Your task to perform on an android device: check android version Image 0: 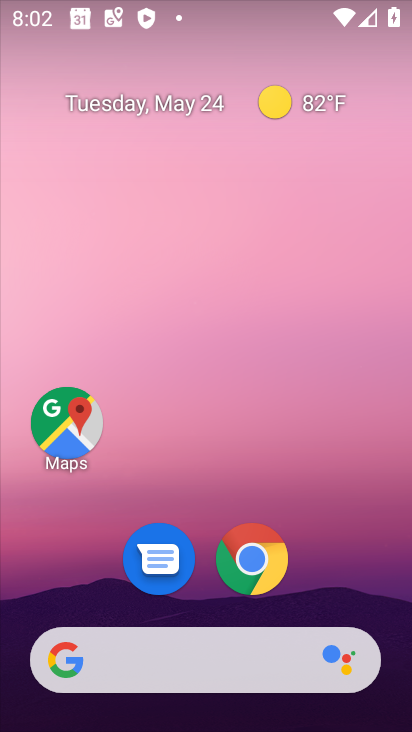
Step 0: drag from (389, 609) to (386, 175)
Your task to perform on an android device: check android version Image 1: 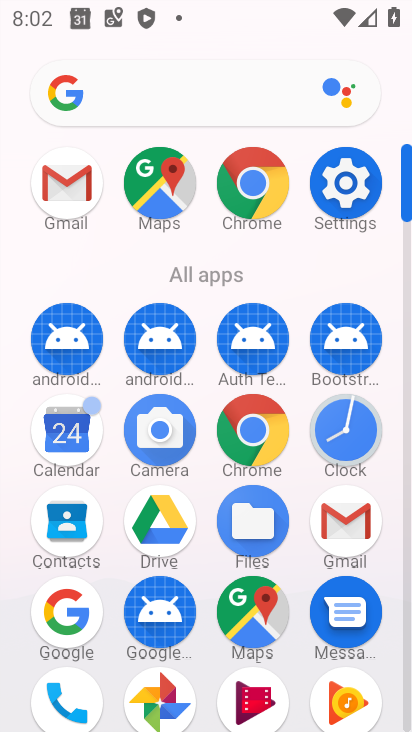
Step 1: click (349, 201)
Your task to perform on an android device: check android version Image 2: 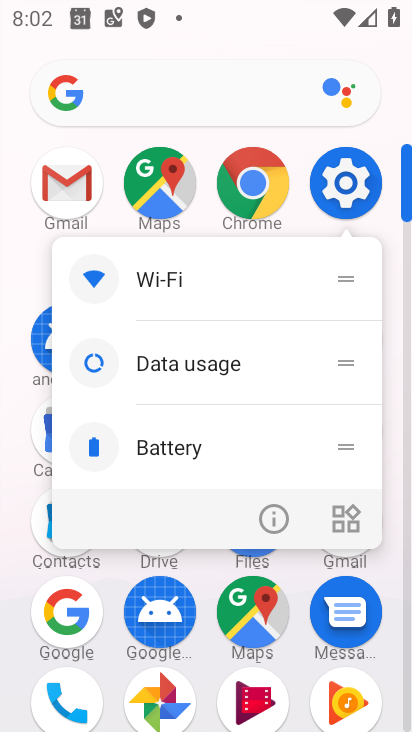
Step 2: click (349, 201)
Your task to perform on an android device: check android version Image 3: 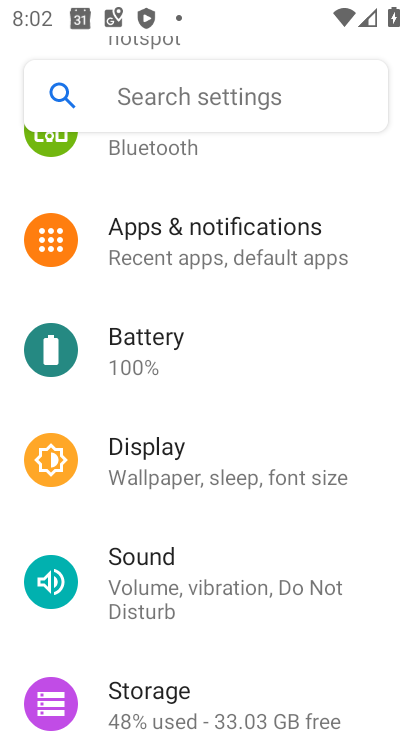
Step 3: drag from (371, 235) to (373, 352)
Your task to perform on an android device: check android version Image 4: 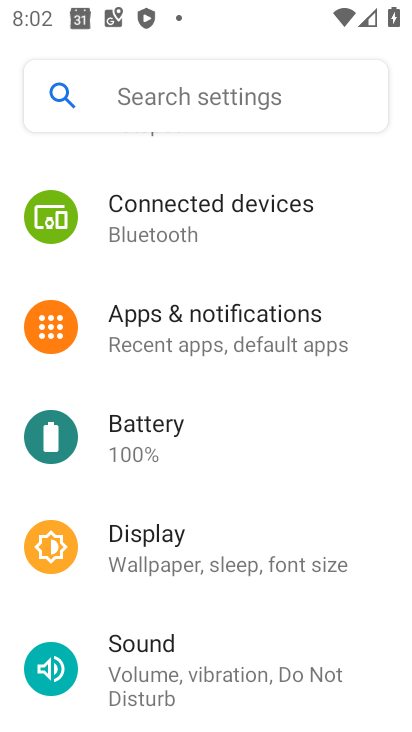
Step 4: drag from (371, 215) to (374, 383)
Your task to perform on an android device: check android version Image 5: 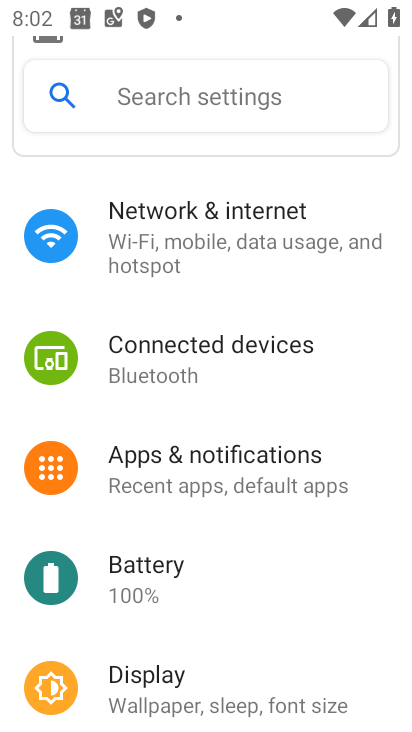
Step 5: drag from (365, 210) to (356, 417)
Your task to perform on an android device: check android version Image 6: 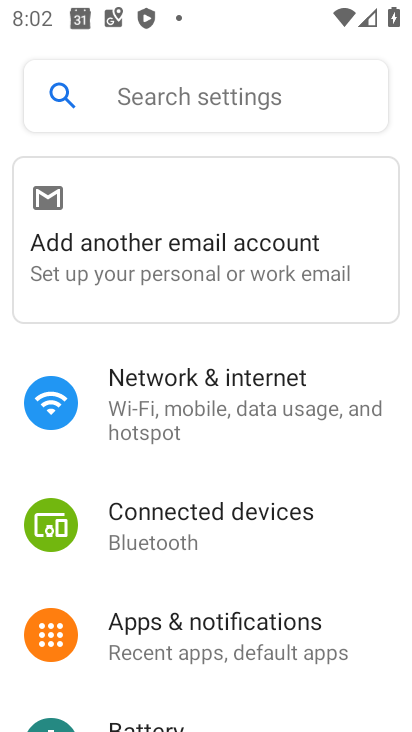
Step 6: drag from (368, 557) to (371, 401)
Your task to perform on an android device: check android version Image 7: 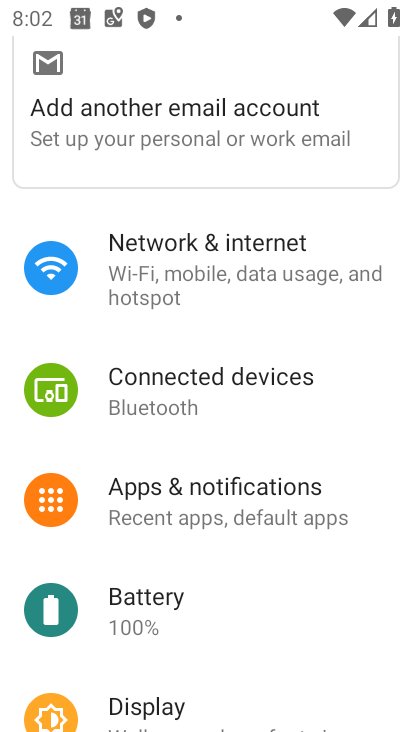
Step 7: drag from (369, 615) to (370, 435)
Your task to perform on an android device: check android version Image 8: 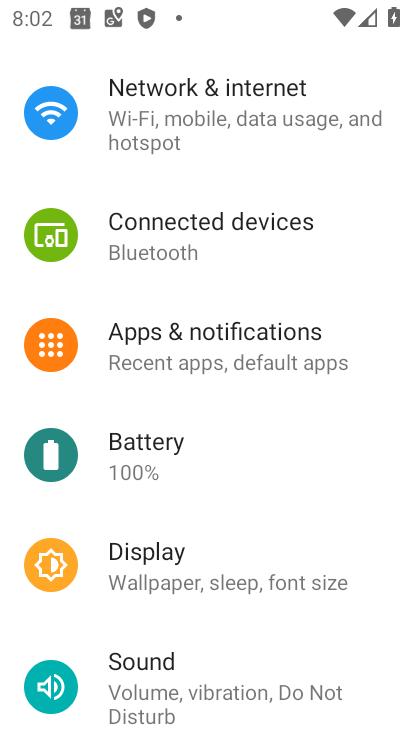
Step 8: drag from (361, 554) to (364, 405)
Your task to perform on an android device: check android version Image 9: 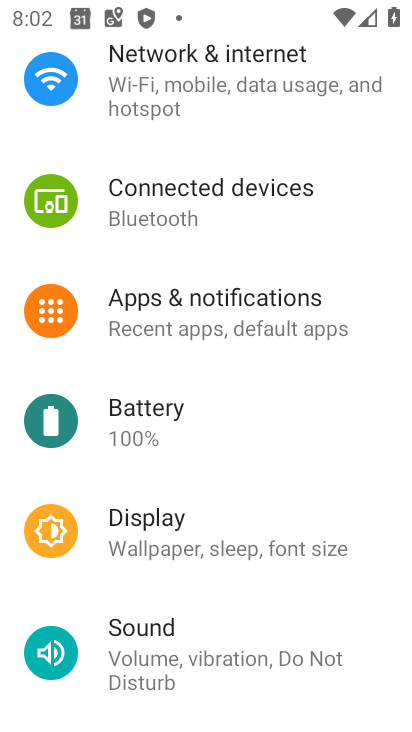
Step 9: drag from (361, 625) to (372, 477)
Your task to perform on an android device: check android version Image 10: 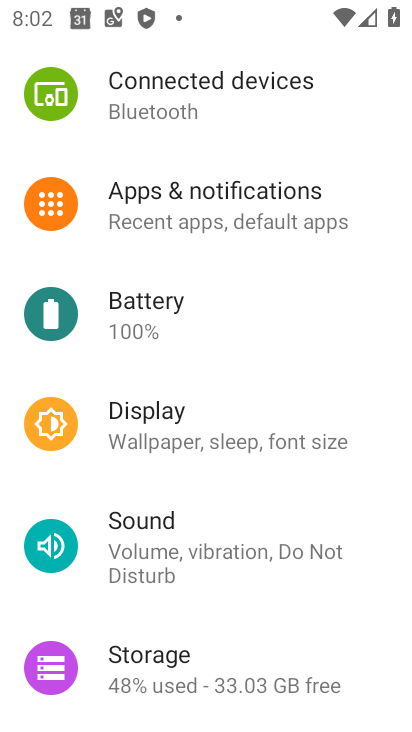
Step 10: drag from (369, 637) to (378, 516)
Your task to perform on an android device: check android version Image 11: 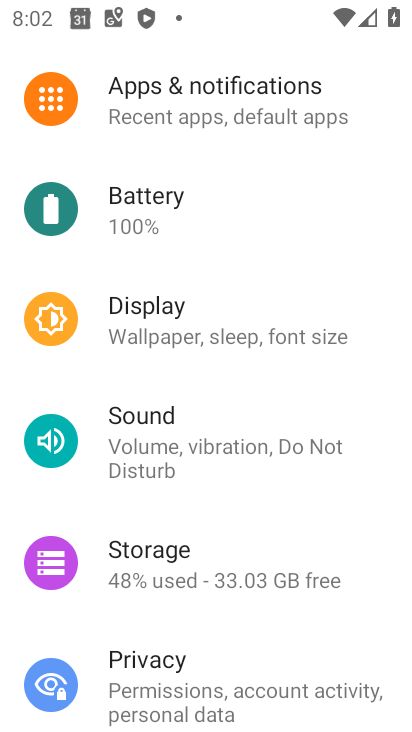
Step 11: drag from (370, 635) to (368, 476)
Your task to perform on an android device: check android version Image 12: 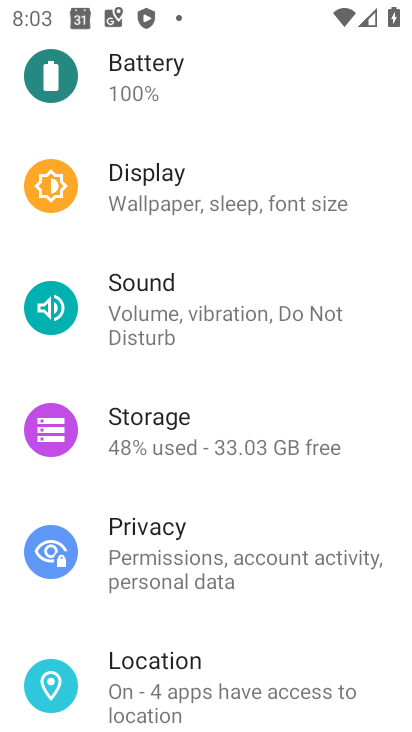
Step 12: drag from (366, 646) to (364, 495)
Your task to perform on an android device: check android version Image 13: 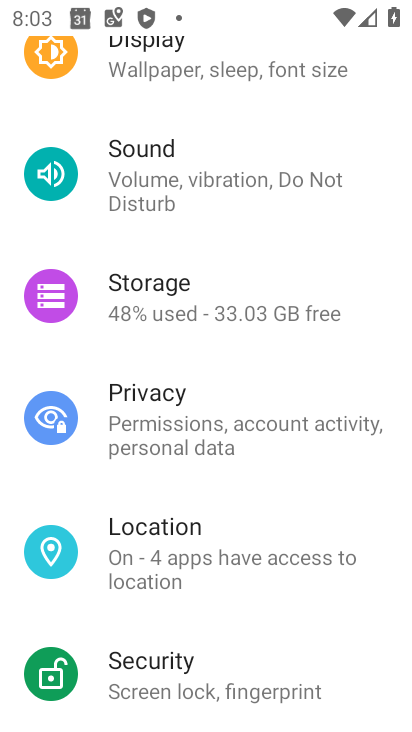
Step 13: drag from (359, 648) to (349, 494)
Your task to perform on an android device: check android version Image 14: 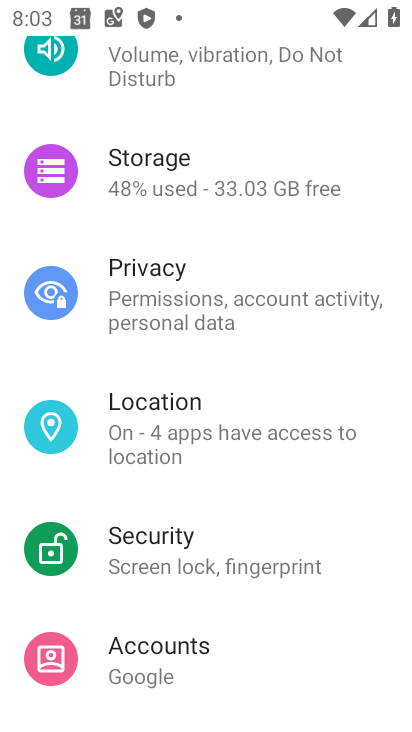
Step 14: drag from (355, 628) to (361, 505)
Your task to perform on an android device: check android version Image 15: 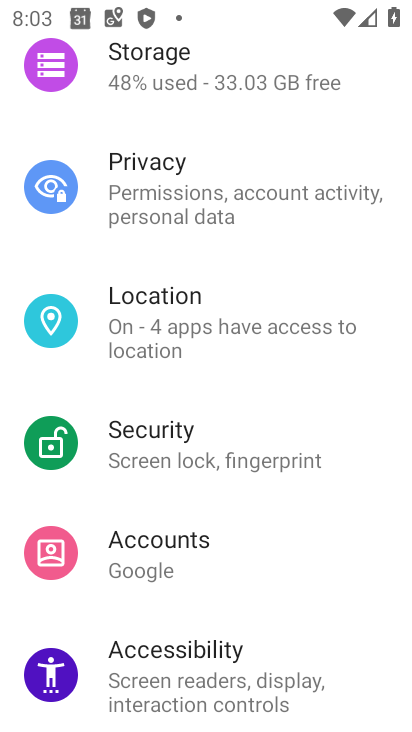
Step 15: drag from (368, 638) to (351, 429)
Your task to perform on an android device: check android version Image 16: 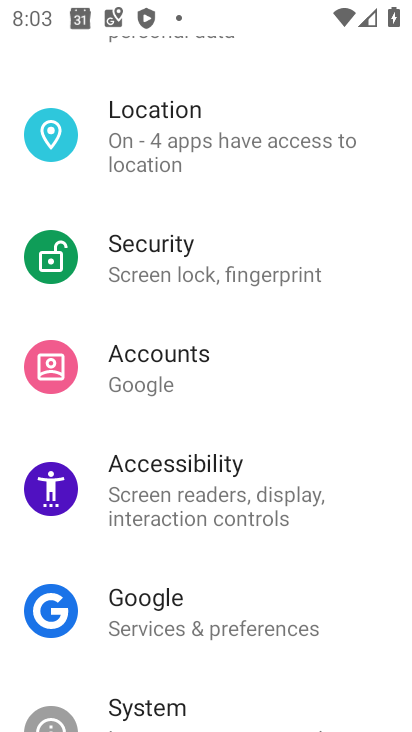
Step 16: drag from (361, 575) to (368, 425)
Your task to perform on an android device: check android version Image 17: 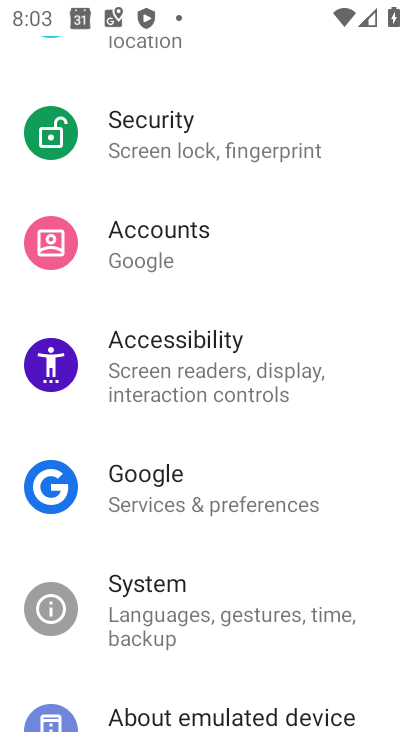
Step 17: drag from (361, 660) to (355, 495)
Your task to perform on an android device: check android version Image 18: 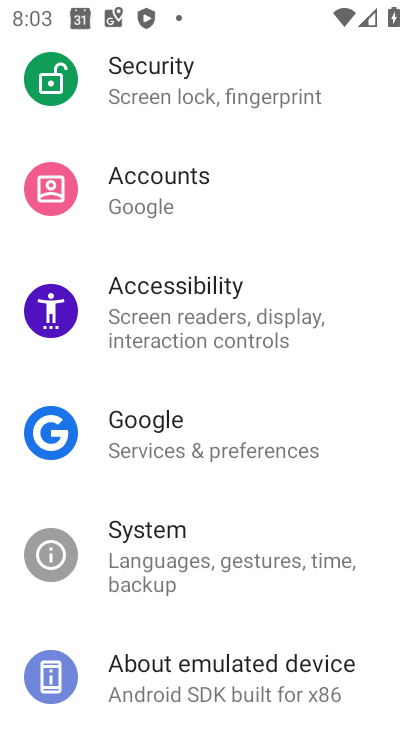
Step 18: click (222, 569)
Your task to perform on an android device: check android version Image 19: 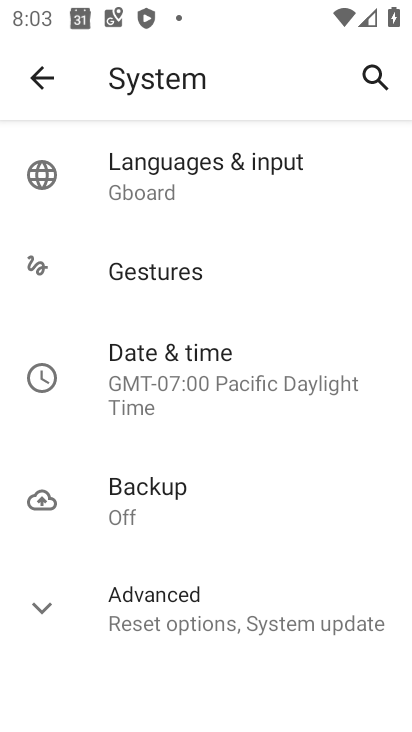
Step 19: click (316, 599)
Your task to perform on an android device: check android version Image 20: 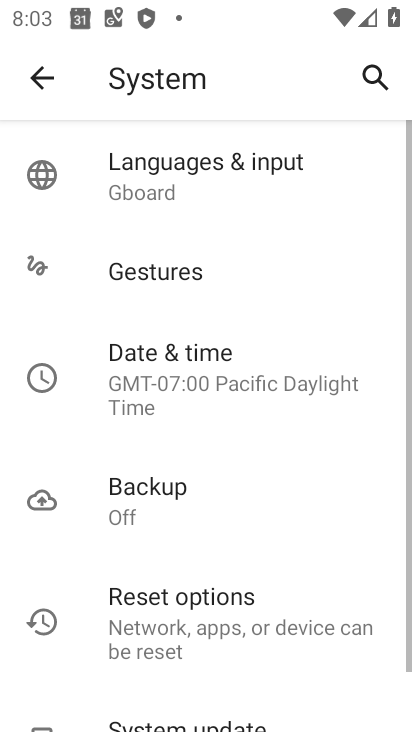
Step 20: drag from (316, 570) to (343, 227)
Your task to perform on an android device: check android version Image 21: 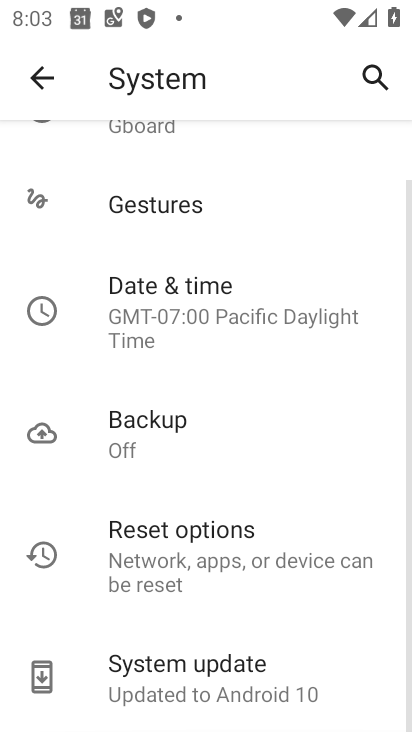
Step 21: click (271, 680)
Your task to perform on an android device: check android version Image 22: 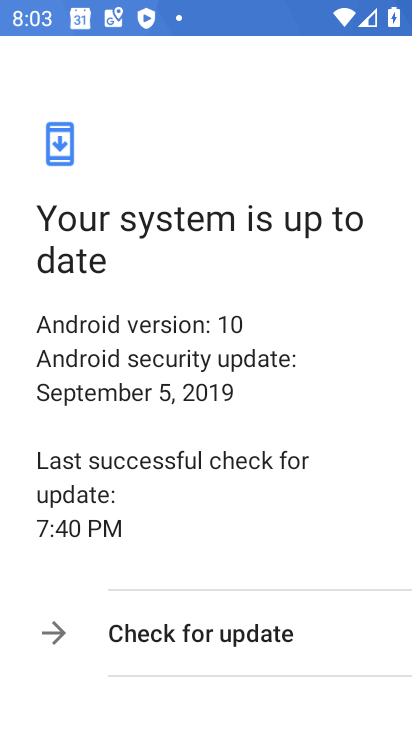
Step 22: task complete